Your task to perform on an android device: turn off data saver in the chrome app Image 0: 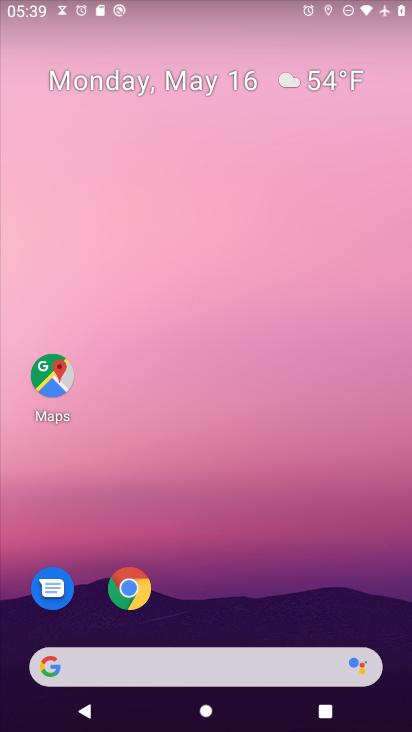
Step 0: drag from (268, 563) to (226, 4)
Your task to perform on an android device: turn off data saver in the chrome app Image 1: 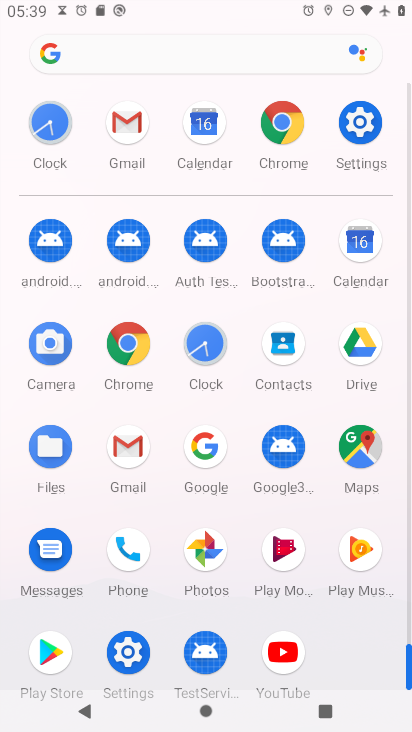
Step 1: drag from (11, 480) to (16, 223)
Your task to perform on an android device: turn off data saver in the chrome app Image 2: 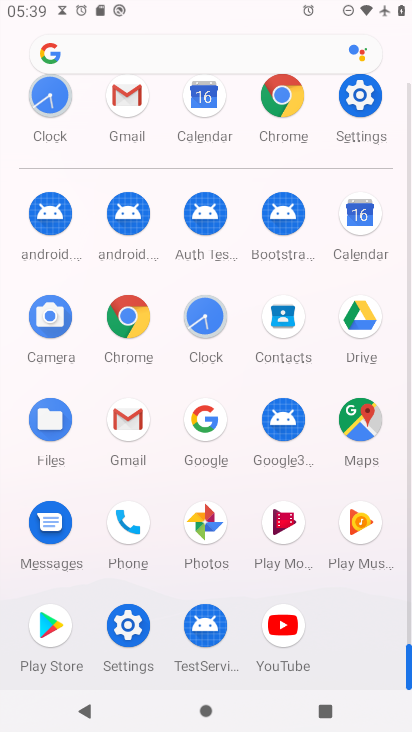
Step 2: click (122, 311)
Your task to perform on an android device: turn off data saver in the chrome app Image 3: 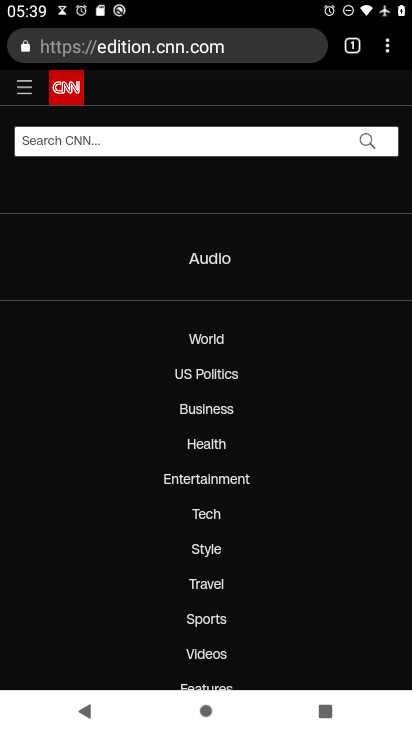
Step 3: drag from (390, 41) to (232, 551)
Your task to perform on an android device: turn off data saver in the chrome app Image 4: 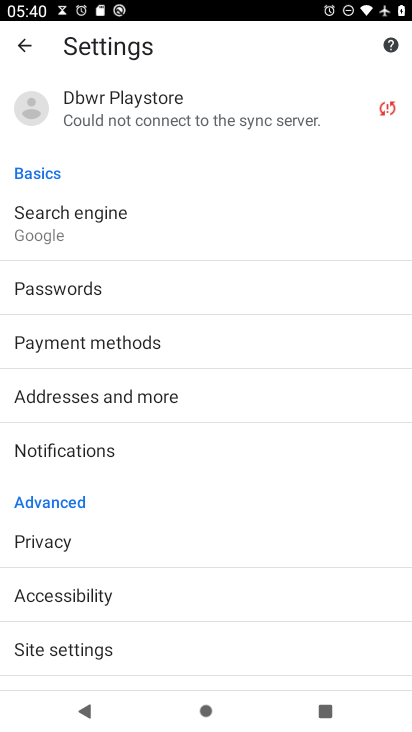
Step 4: drag from (131, 527) to (156, 167)
Your task to perform on an android device: turn off data saver in the chrome app Image 5: 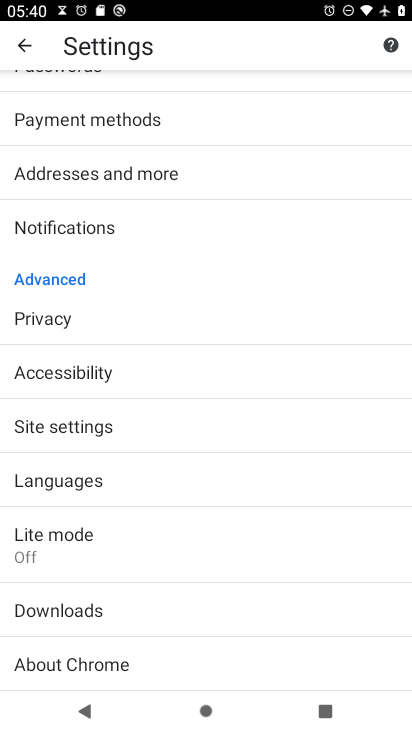
Step 5: click (93, 544)
Your task to perform on an android device: turn off data saver in the chrome app Image 6: 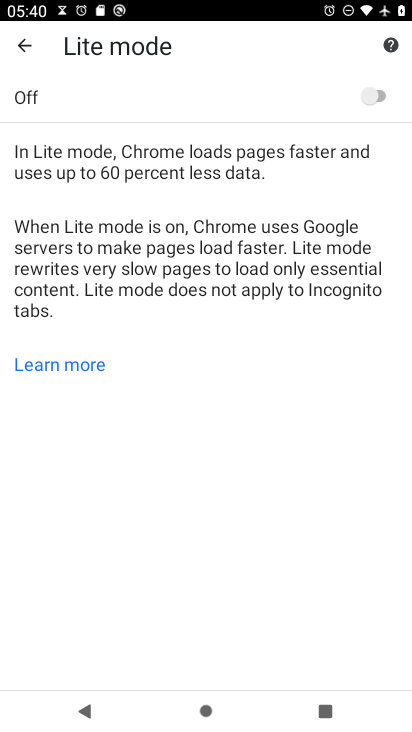
Step 6: task complete